Your task to perform on an android device: Clear the cart on target. Image 0: 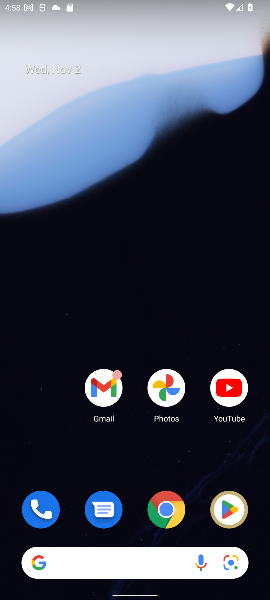
Step 0: click (120, 565)
Your task to perform on an android device: Clear the cart on target. Image 1: 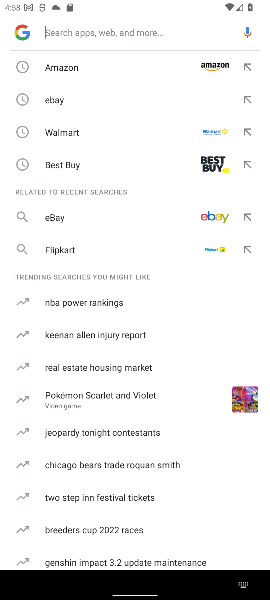
Step 1: type "target"
Your task to perform on an android device: Clear the cart on target. Image 2: 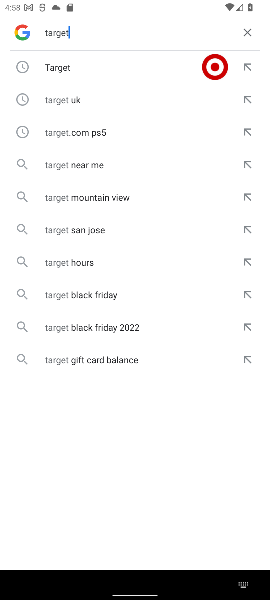
Step 2: click (65, 65)
Your task to perform on an android device: Clear the cart on target. Image 3: 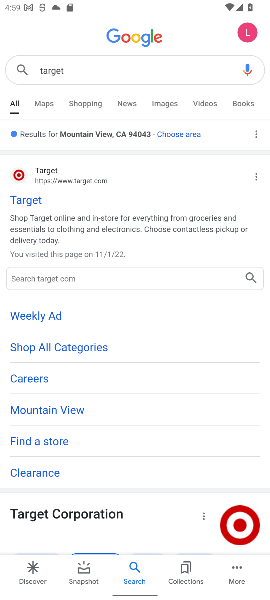
Step 3: click (30, 195)
Your task to perform on an android device: Clear the cart on target. Image 4: 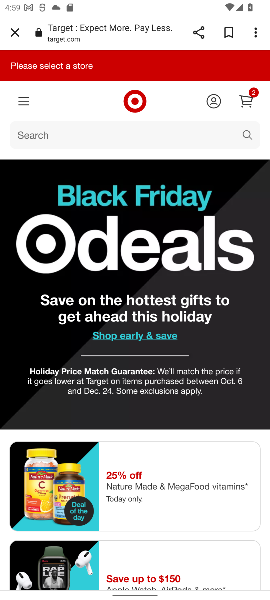
Step 4: click (251, 95)
Your task to perform on an android device: Clear the cart on target. Image 5: 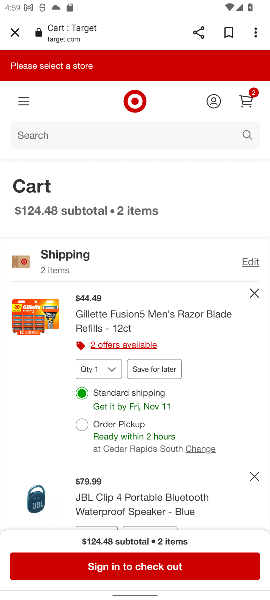
Step 5: click (256, 292)
Your task to perform on an android device: Clear the cart on target. Image 6: 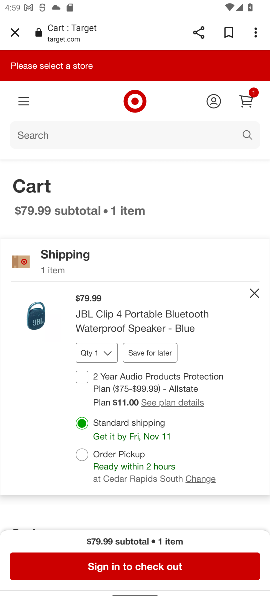
Step 6: click (256, 290)
Your task to perform on an android device: Clear the cart on target. Image 7: 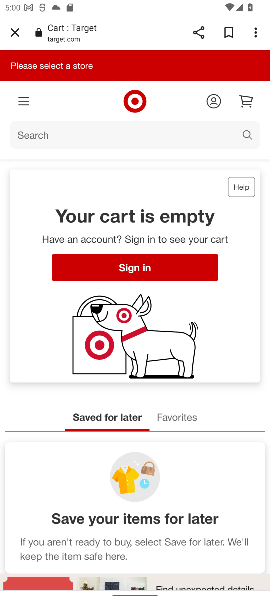
Step 7: task complete